Your task to perform on an android device: Turn on the flashlight Image 0: 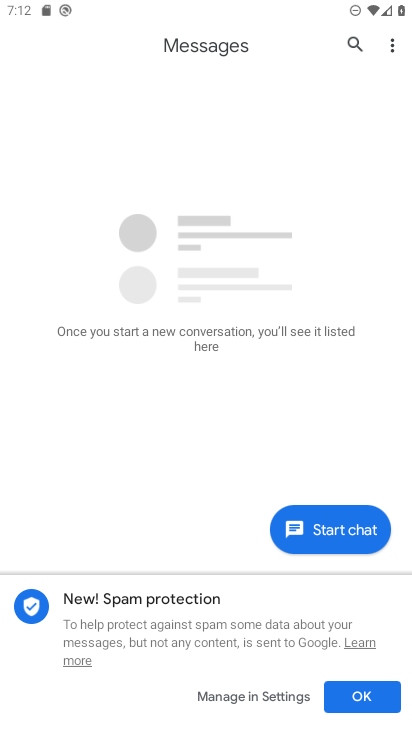
Step 0: press home button
Your task to perform on an android device: Turn on the flashlight Image 1: 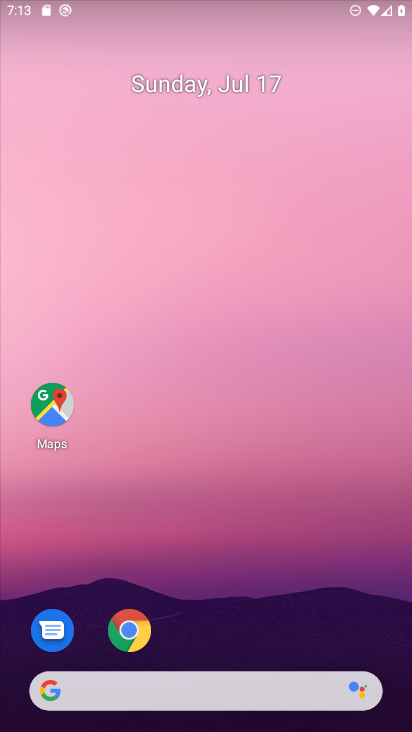
Step 1: drag from (393, 658) to (268, 60)
Your task to perform on an android device: Turn on the flashlight Image 2: 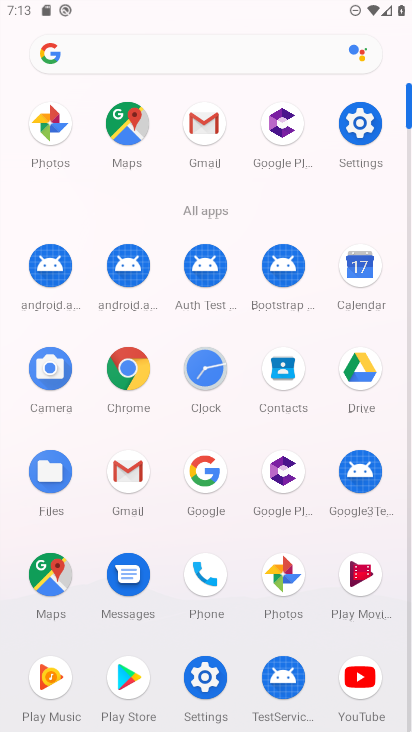
Step 2: click (218, 679)
Your task to perform on an android device: Turn on the flashlight Image 3: 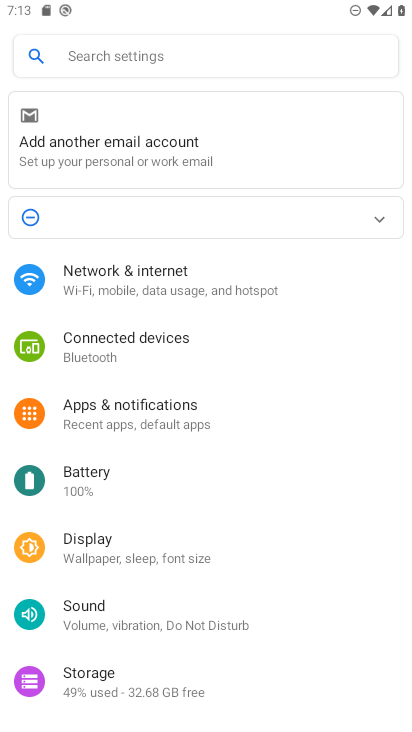
Step 3: task complete